Your task to perform on an android device: Open wifi settings Image 0: 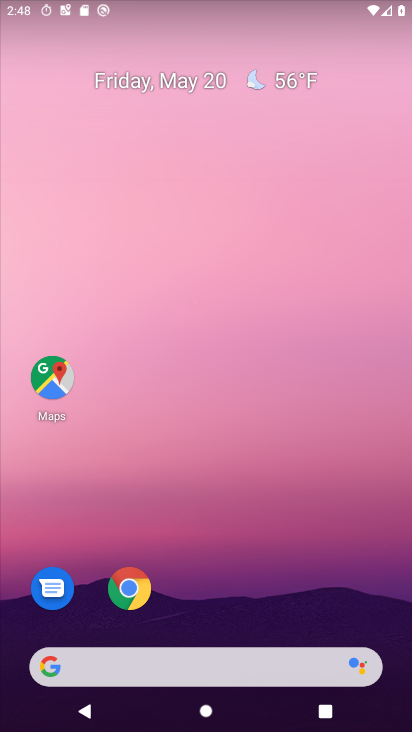
Step 0: drag from (180, 0) to (208, 250)
Your task to perform on an android device: Open wifi settings Image 1: 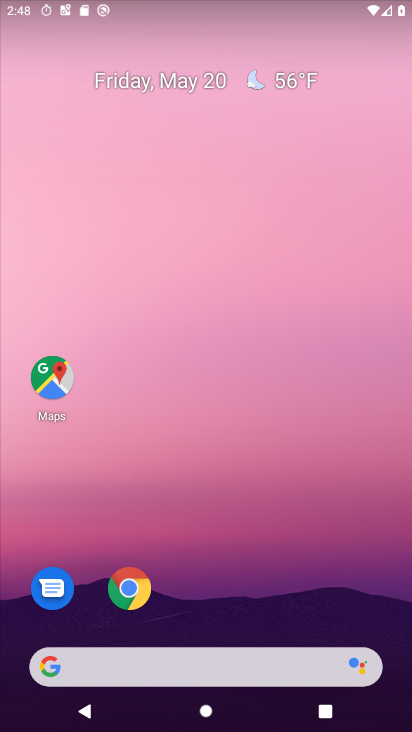
Step 1: drag from (232, 9) to (248, 408)
Your task to perform on an android device: Open wifi settings Image 2: 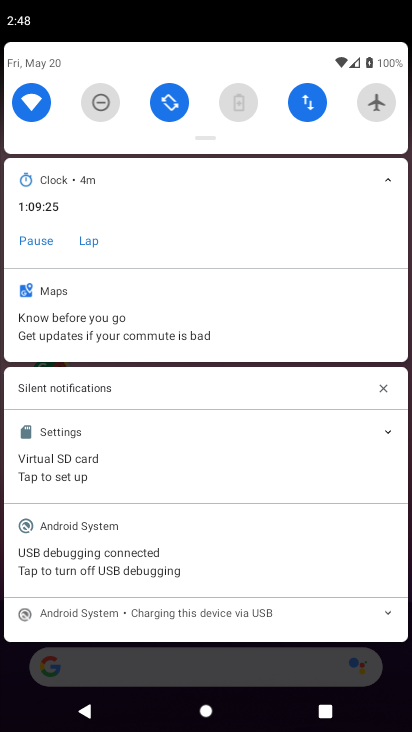
Step 2: click (23, 98)
Your task to perform on an android device: Open wifi settings Image 3: 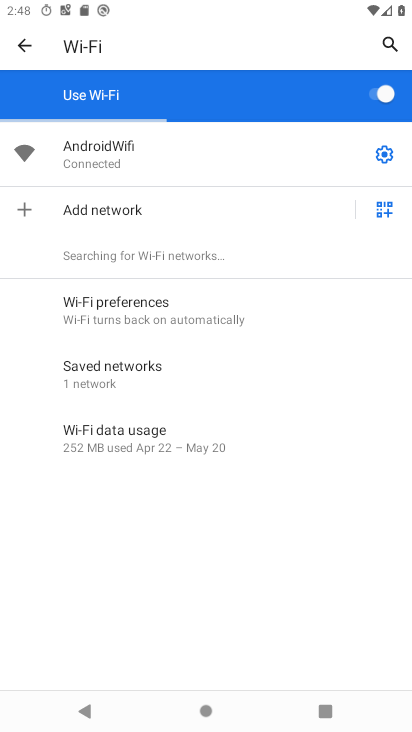
Step 3: click (375, 155)
Your task to perform on an android device: Open wifi settings Image 4: 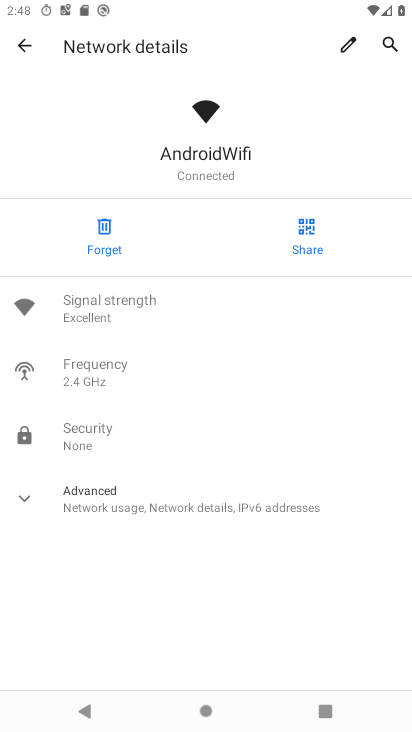
Step 4: task complete